Your task to perform on an android device: clear all cookies in the chrome app Image 0: 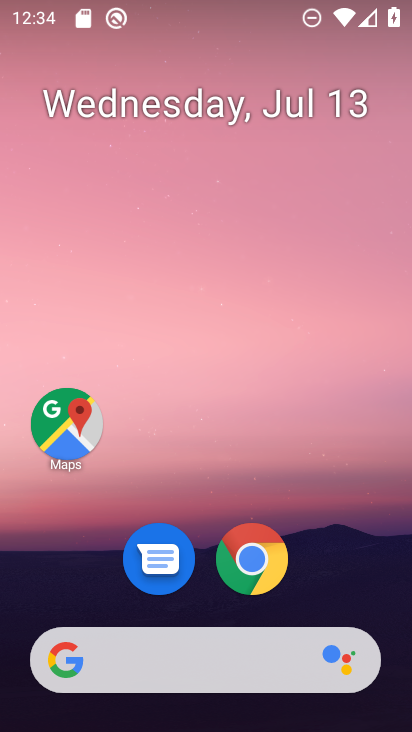
Step 0: drag from (202, 676) to (221, 183)
Your task to perform on an android device: clear all cookies in the chrome app Image 1: 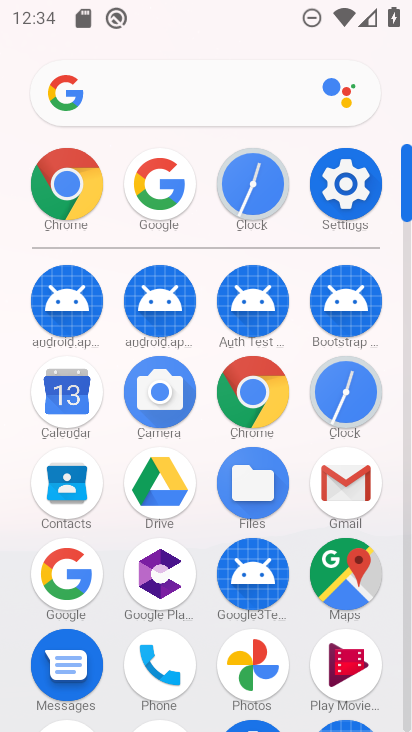
Step 1: click (253, 409)
Your task to perform on an android device: clear all cookies in the chrome app Image 2: 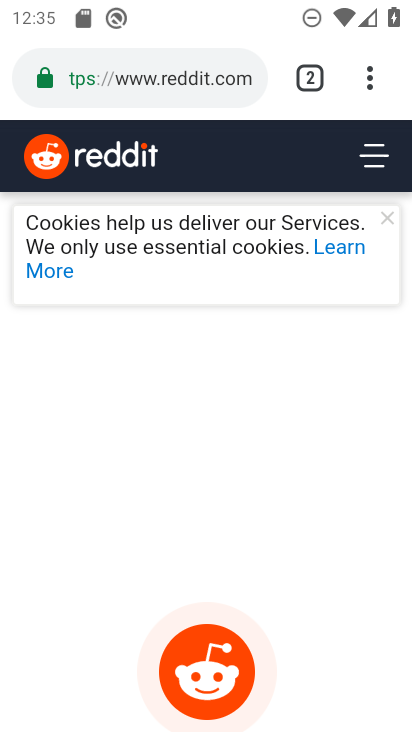
Step 2: click (382, 102)
Your task to perform on an android device: clear all cookies in the chrome app Image 3: 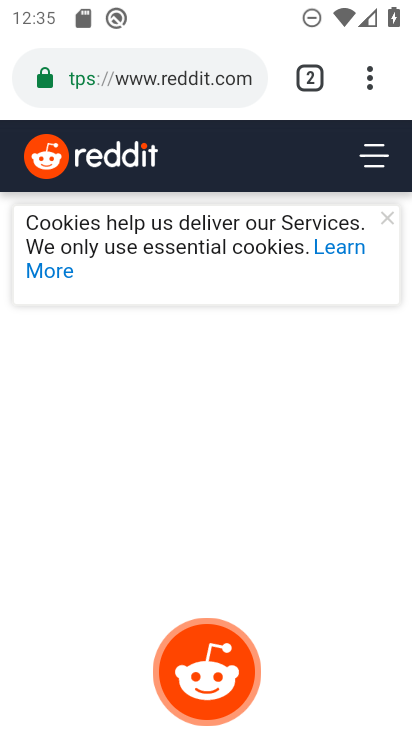
Step 3: click (363, 78)
Your task to perform on an android device: clear all cookies in the chrome app Image 4: 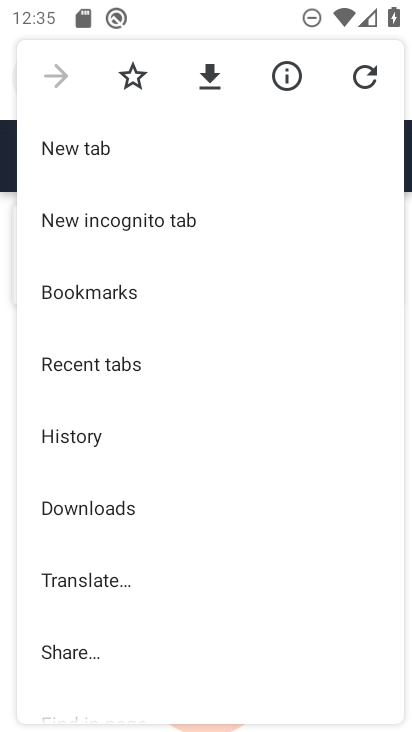
Step 4: click (84, 428)
Your task to perform on an android device: clear all cookies in the chrome app Image 5: 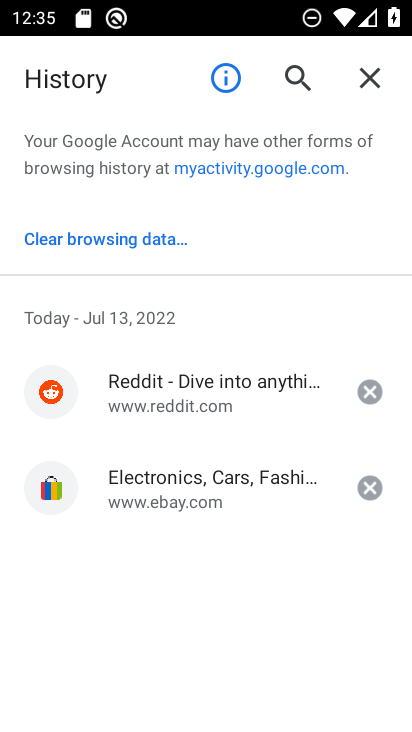
Step 5: click (138, 250)
Your task to perform on an android device: clear all cookies in the chrome app Image 6: 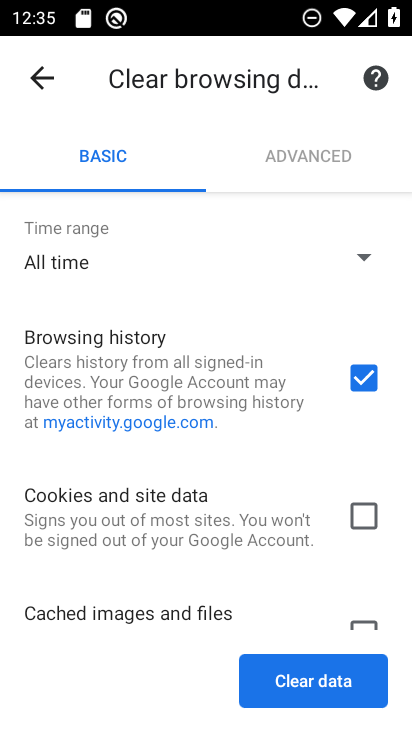
Step 6: click (358, 532)
Your task to perform on an android device: clear all cookies in the chrome app Image 7: 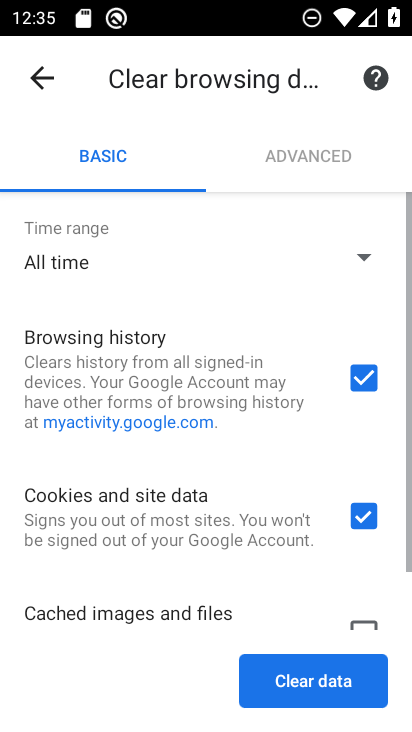
Step 7: click (349, 383)
Your task to perform on an android device: clear all cookies in the chrome app Image 8: 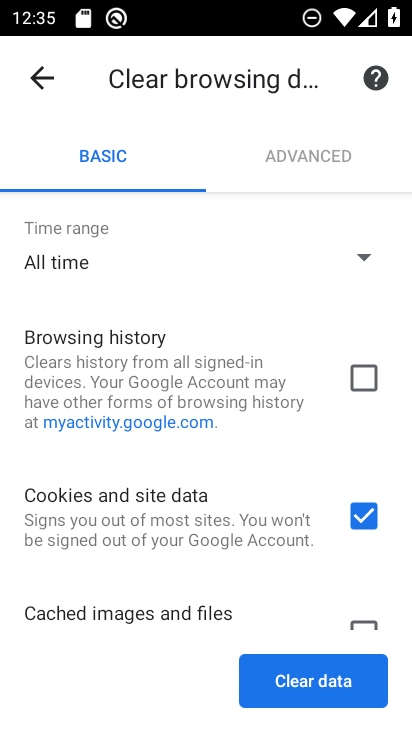
Step 8: click (327, 684)
Your task to perform on an android device: clear all cookies in the chrome app Image 9: 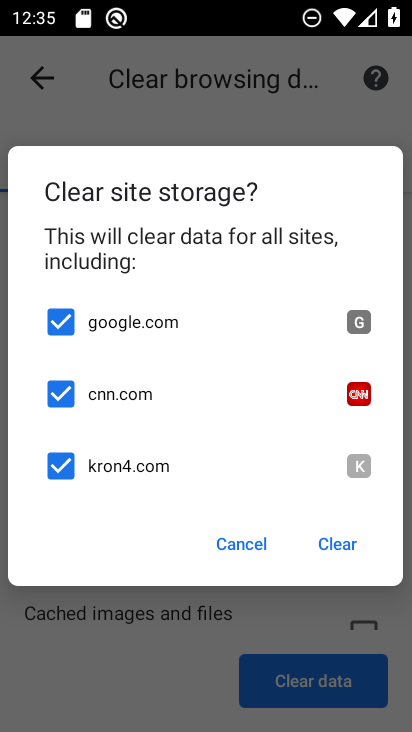
Step 9: click (340, 536)
Your task to perform on an android device: clear all cookies in the chrome app Image 10: 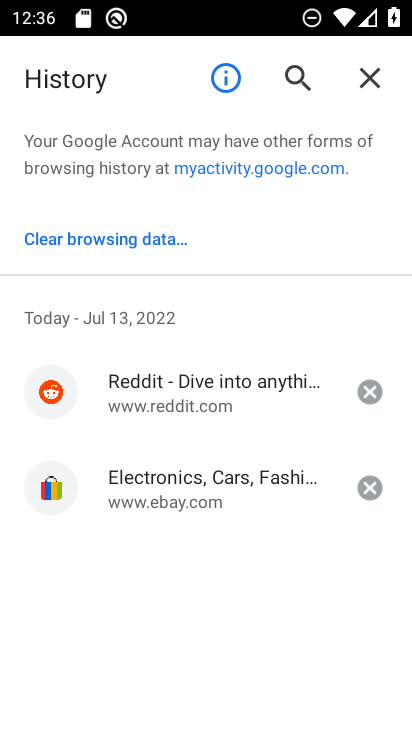
Step 10: task complete